Your task to perform on an android device: Open Amazon Image 0: 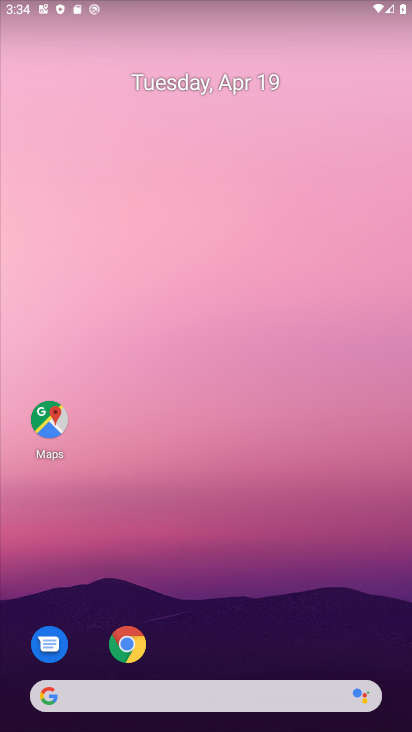
Step 0: click (123, 643)
Your task to perform on an android device: Open Amazon Image 1: 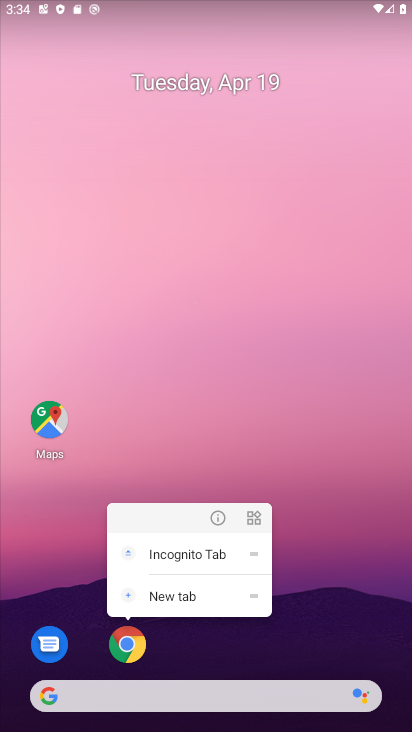
Step 1: click (131, 647)
Your task to perform on an android device: Open Amazon Image 2: 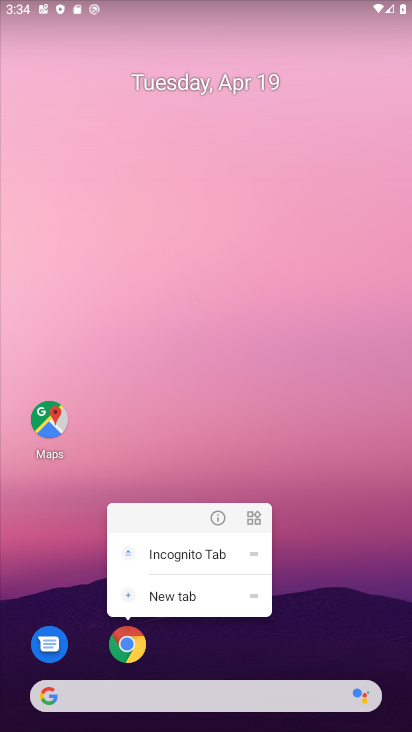
Step 2: click (138, 648)
Your task to perform on an android device: Open Amazon Image 3: 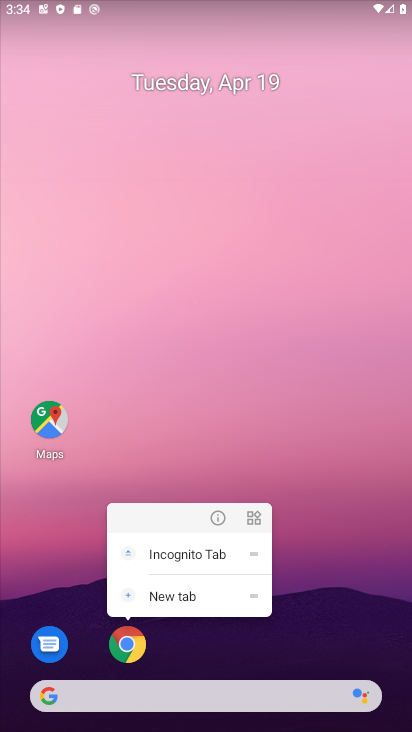
Step 3: click (133, 652)
Your task to perform on an android device: Open Amazon Image 4: 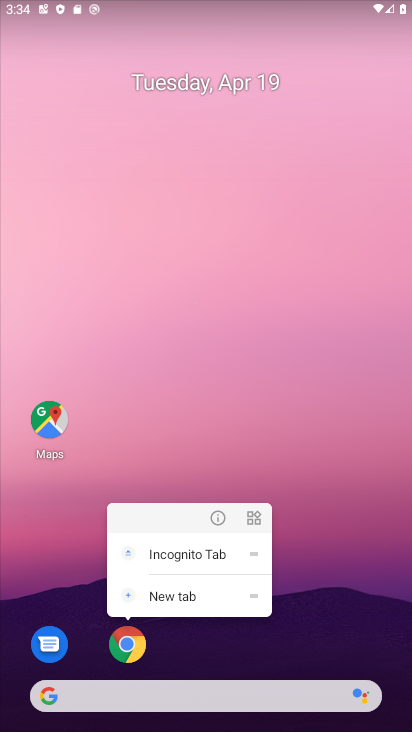
Step 4: click (132, 654)
Your task to perform on an android device: Open Amazon Image 5: 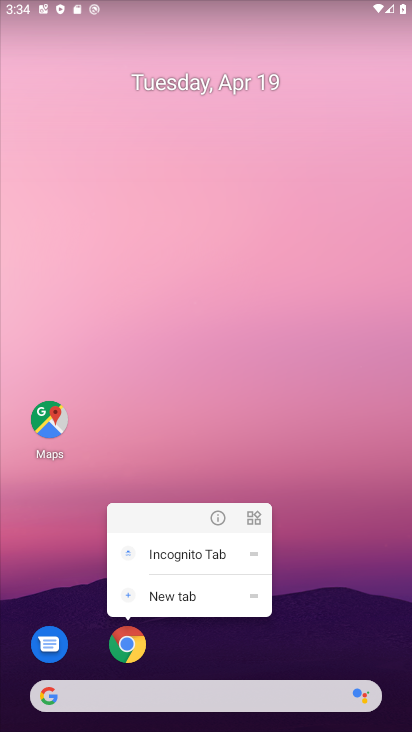
Step 5: click (133, 652)
Your task to perform on an android device: Open Amazon Image 6: 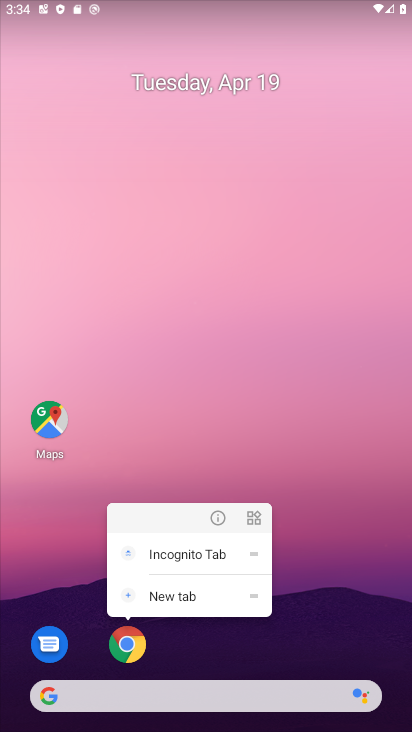
Step 6: drag from (316, 658) to (411, 139)
Your task to perform on an android device: Open Amazon Image 7: 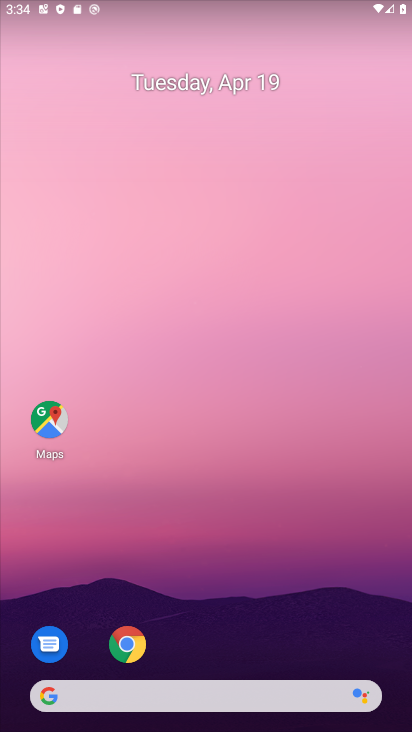
Step 7: drag from (223, 605) to (347, 56)
Your task to perform on an android device: Open Amazon Image 8: 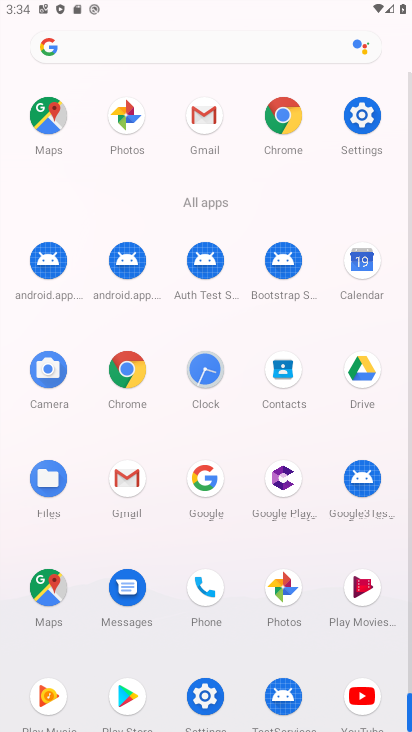
Step 8: click (111, 357)
Your task to perform on an android device: Open Amazon Image 9: 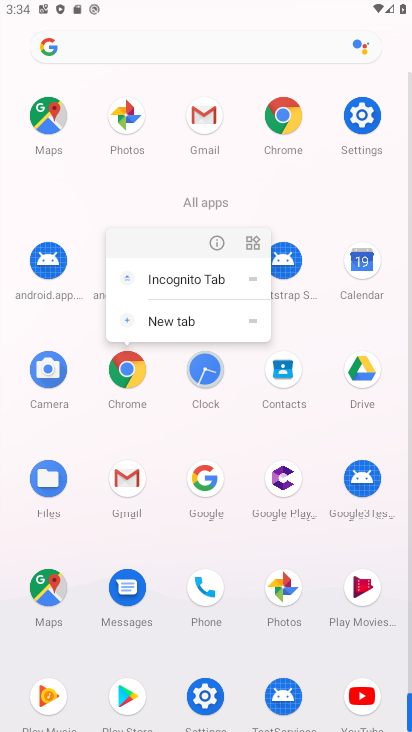
Step 9: click (127, 370)
Your task to perform on an android device: Open Amazon Image 10: 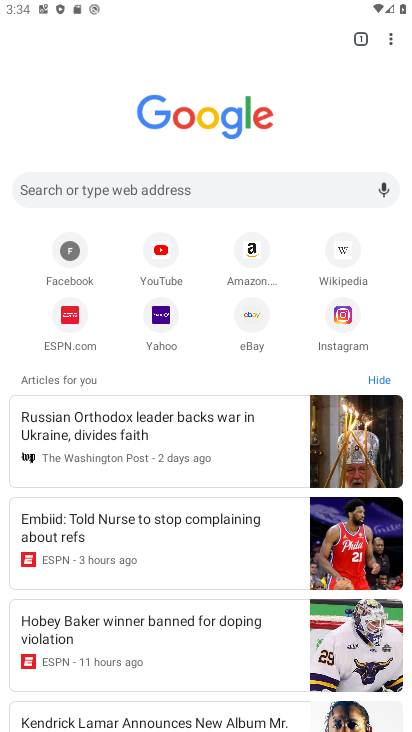
Step 10: click (254, 248)
Your task to perform on an android device: Open Amazon Image 11: 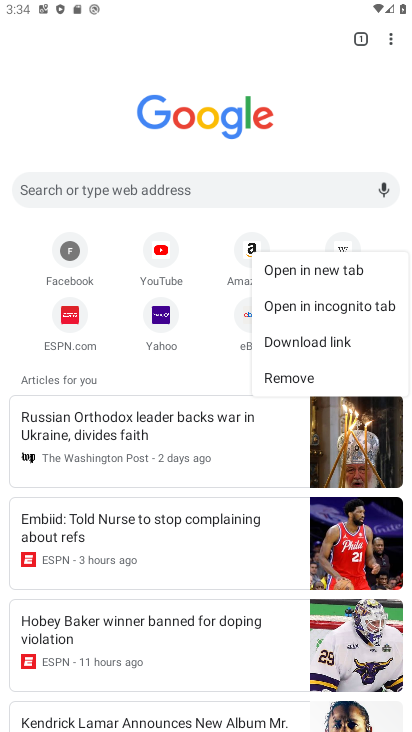
Step 11: click (254, 247)
Your task to perform on an android device: Open Amazon Image 12: 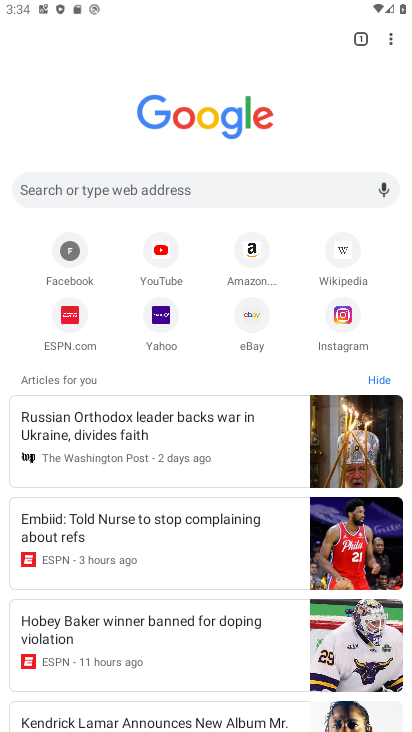
Step 12: click (254, 250)
Your task to perform on an android device: Open Amazon Image 13: 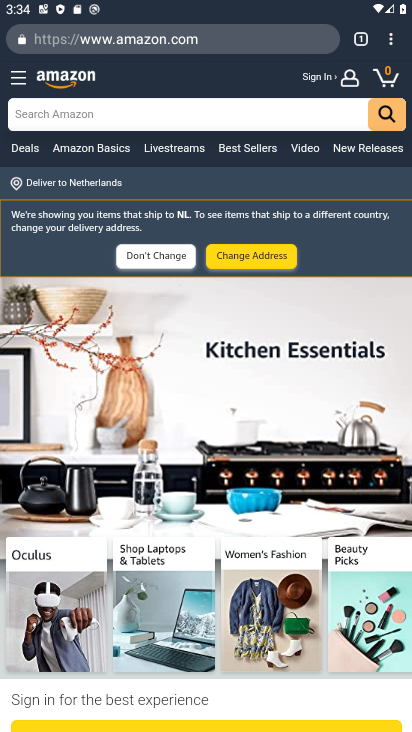
Step 13: task complete